Your task to perform on an android device: Open location settings Image 0: 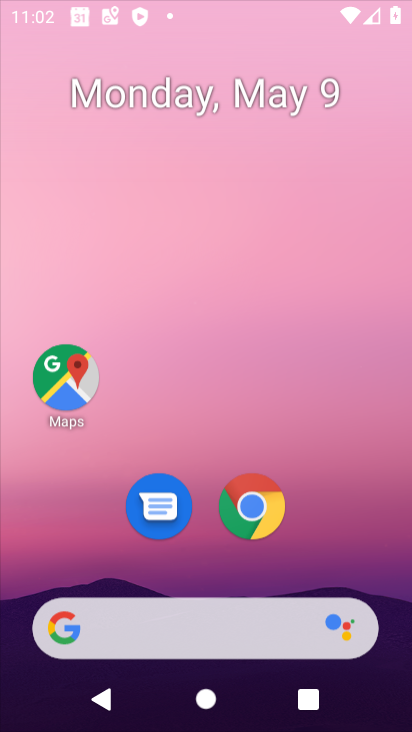
Step 0: drag from (323, 19) to (255, 108)
Your task to perform on an android device: Open location settings Image 1: 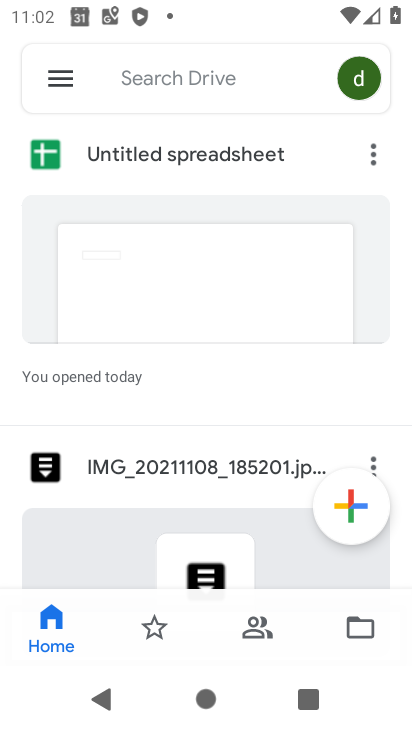
Step 1: press back button
Your task to perform on an android device: Open location settings Image 2: 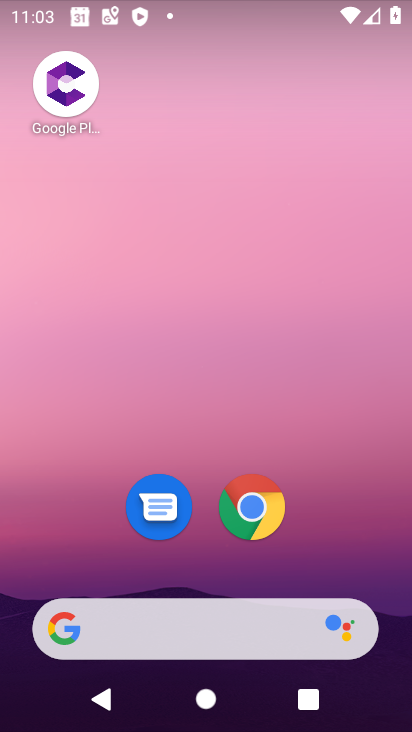
Step 2: drag from (208, 572) to (314, 3)
Your task to perform on an android device: Open location settings Image 3: 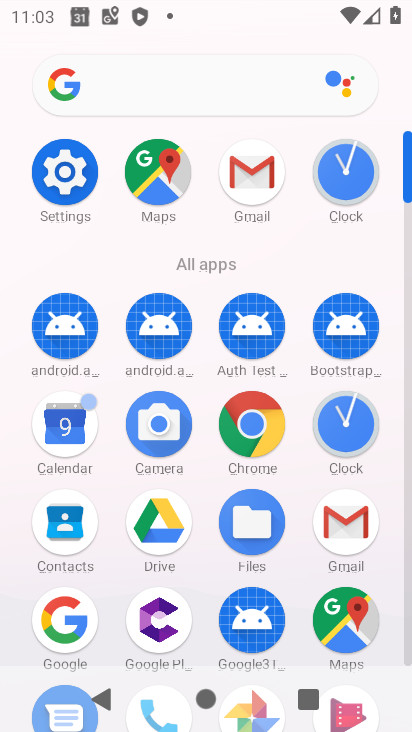
Step 3: click (68, 171)
Your task to perform on an android device: Open location settings Image 4: 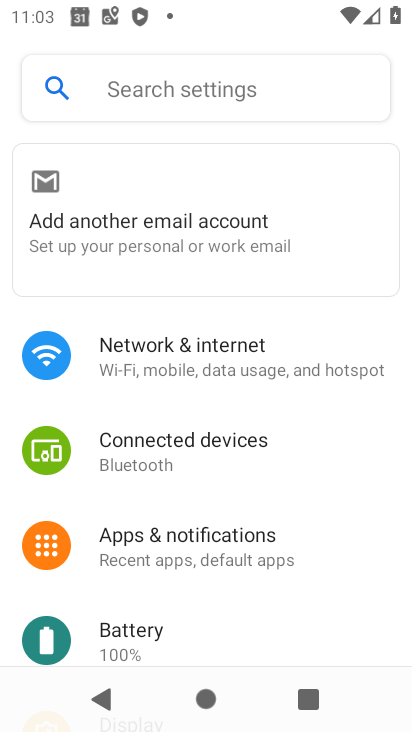
Step 4: drag from (188, 610) to (331, 96)
Your task to perform on an android device: Open location settings Image 5: 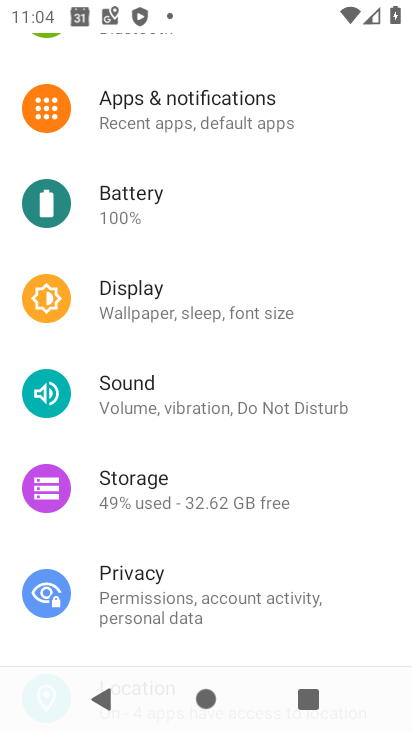
Step 5: drag from (207, 490) to (269, 185)
Your task to perform on an android device: Open location settings Image 6: 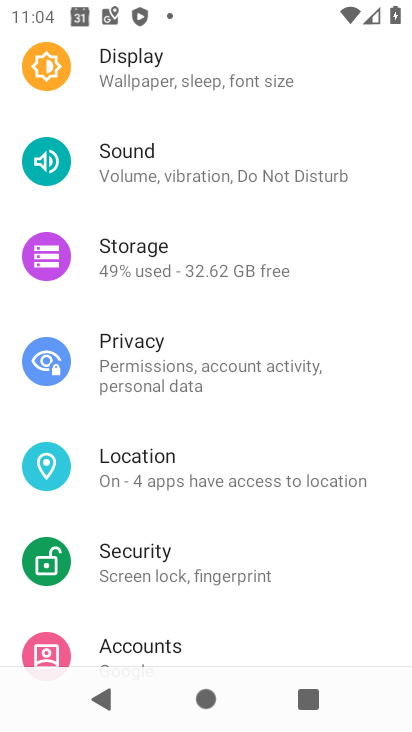
Step 6: click (139, 470)
Your task to perform on an android device: Open location settings Image 7: 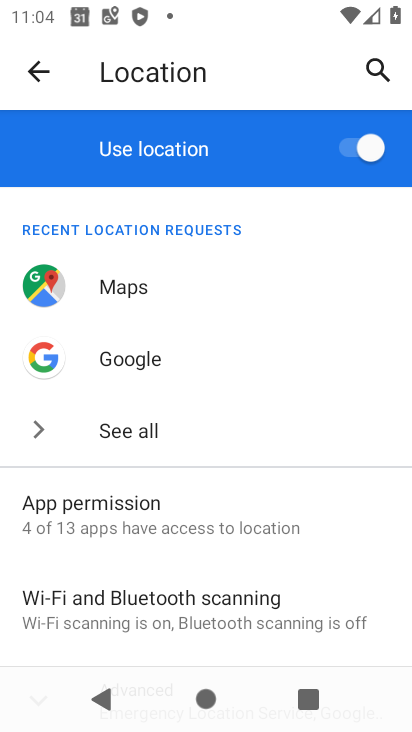
Step 7: task complete